Your task to perform on an android device: Go to CNN.com Image 0: 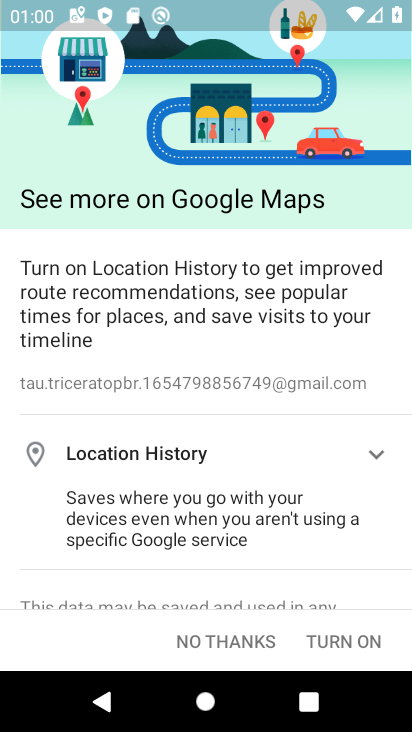
Step 0: press home button
Your task to perform on an android device: Go to CNN.com Image 1: 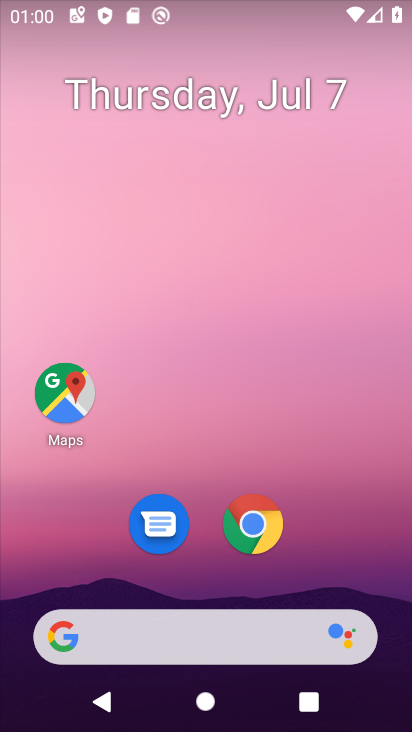
Step 1: click (194, 656)
Your task to perform on an android device: Go to CNN.com Image 2: 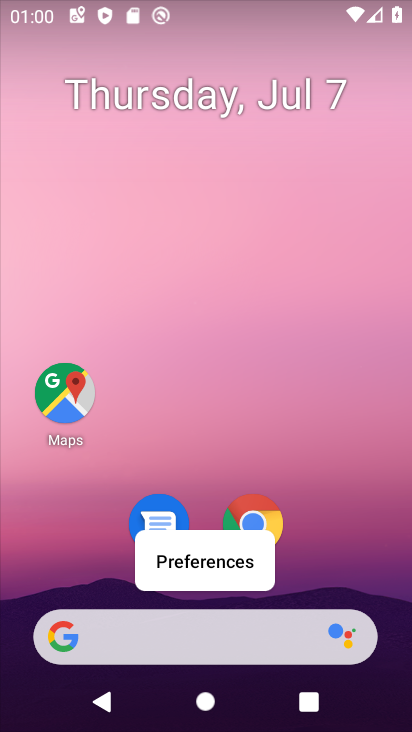
Step 2: click (176, 654)
Your task to perform on an android device: Go to CNN.com Image 3: 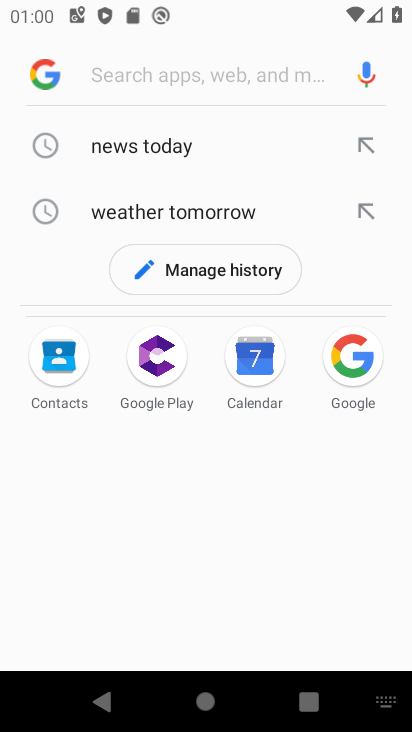
Step 3: type "cnn.com"
Your task to perform on an android device: Go to CNN.com Image 4: 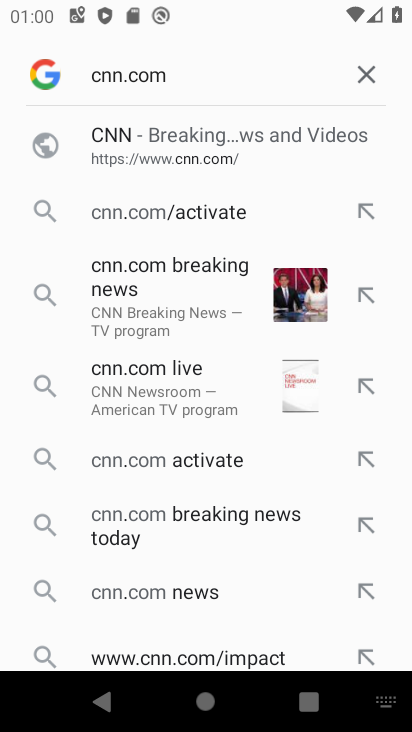
Step 4: click (210, 157)
Your task to perform on an android device: Go to CNN.com Image 5: 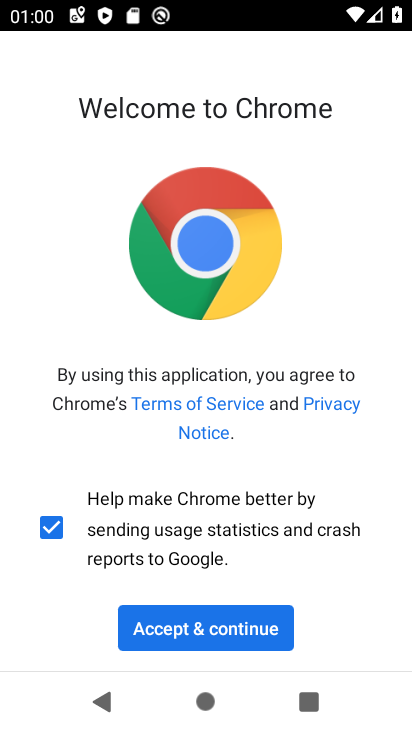
Step 5: click (237, 625)
Your task to perform on an android device: Go to CNN.com Image 6: 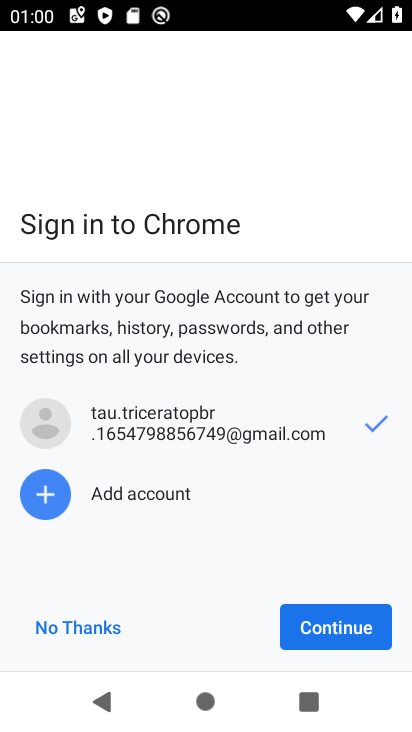
Step 6: click (309, 628)
Your task to perform on an android device: Go to CNN.com Image 7: 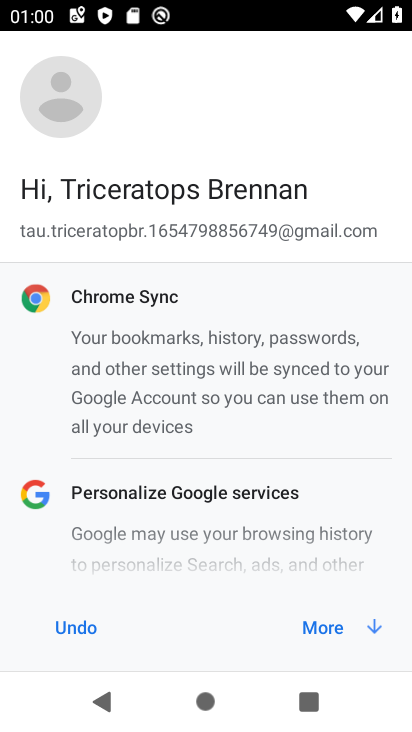
Step 7: click (309, 627)
Your task to perform on an android device: Go to CNN.com Image 8: 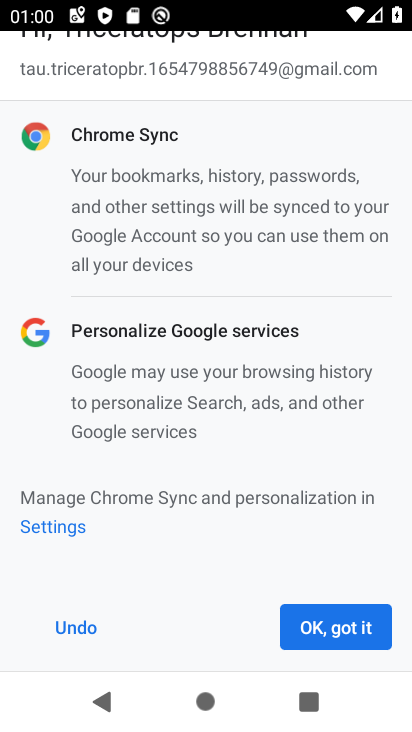
Step 8: click (309, 625)
Your task to perform on an android device: Go to CNN.com Image 9: 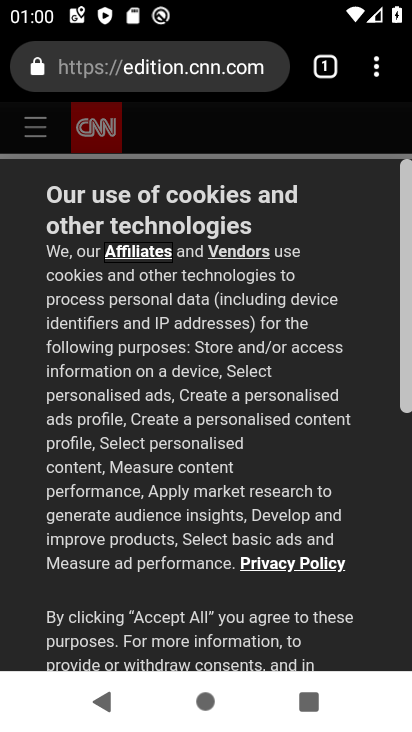
Step 9: task complete